Your task to perform on an android device: manage bookmarks in the chrome app Image 0: 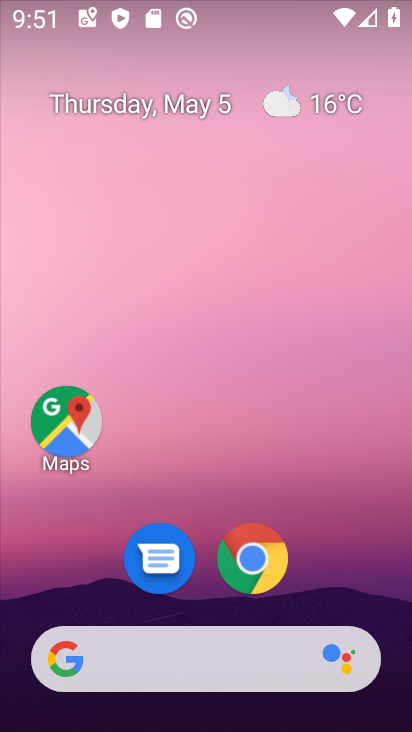
Step 0: click (281, 558)
Your task to perform on an android device: manage bookmarks in the chrome app Image 1: 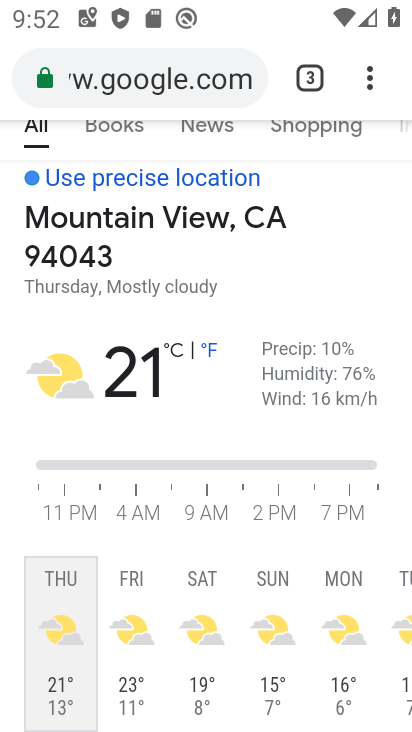
Step 1: click (371, 105)
Your task to perform on an android device: manage bookmarks in the chrome app Image 2: 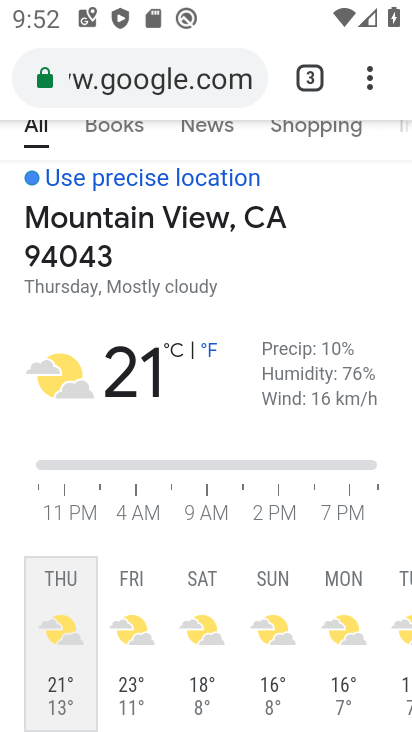
Step 2: drag from (376, 104) to (266, 285)
Your task to perform on an android device: manage bookmarks in the chrome app Image 3: 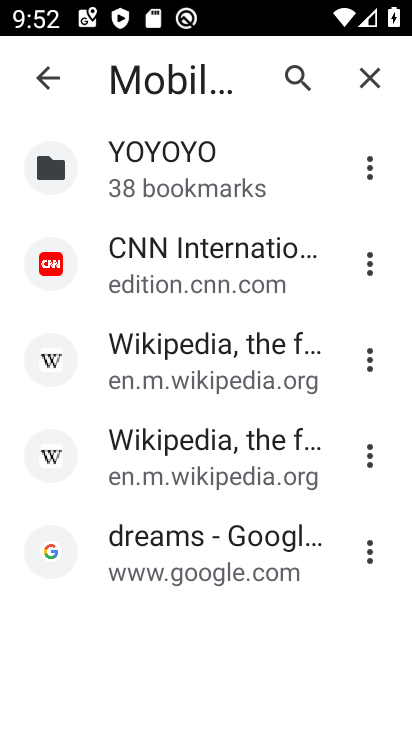
Step 3: click (266, 285)
Your task to perform on an android device: manage bookmarks in the chrome app Image 4: 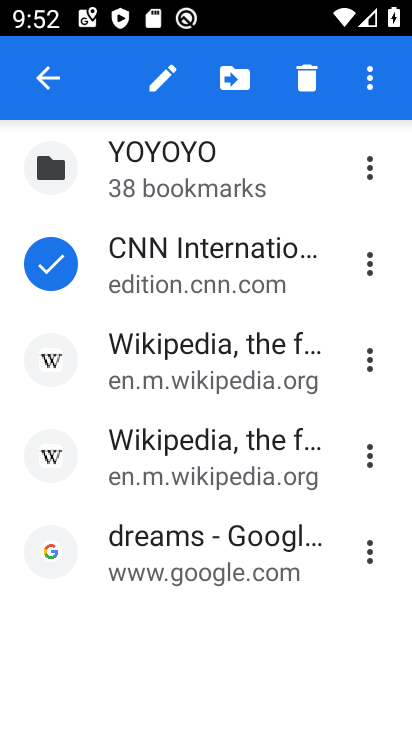
Step 4: click (248, 81)
Your task to perform on an android device: manage bookmarks in the chrome app Image 5: 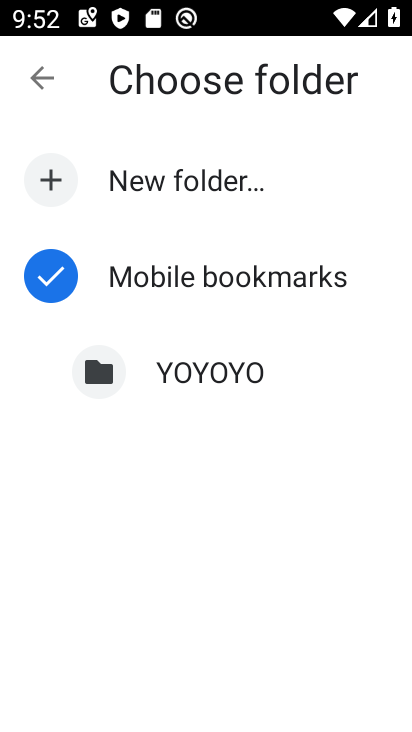
Step 5: click (245, 281)
Your task to perform on an android device: manage bookmarks in the chrome app Image 6: 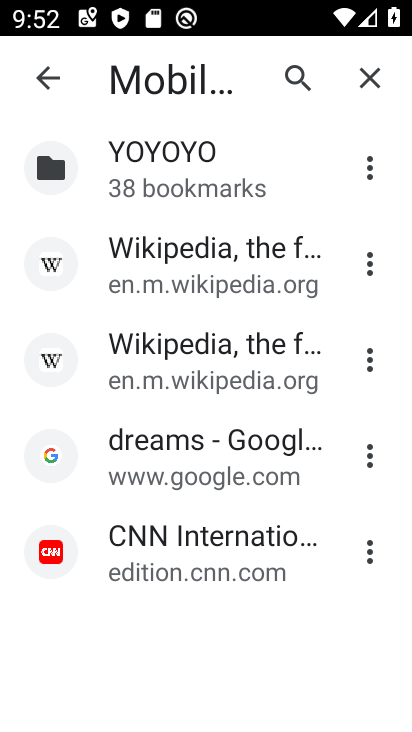
Step 6: task complete